Your task to perform on an android device: set the stopwatch Image 0: 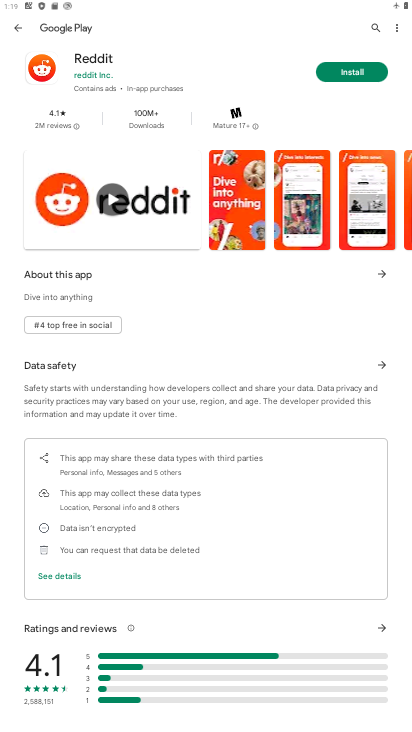
Step 0: press home button
Your task to perform on an android device: set the stopwatch Image 1: 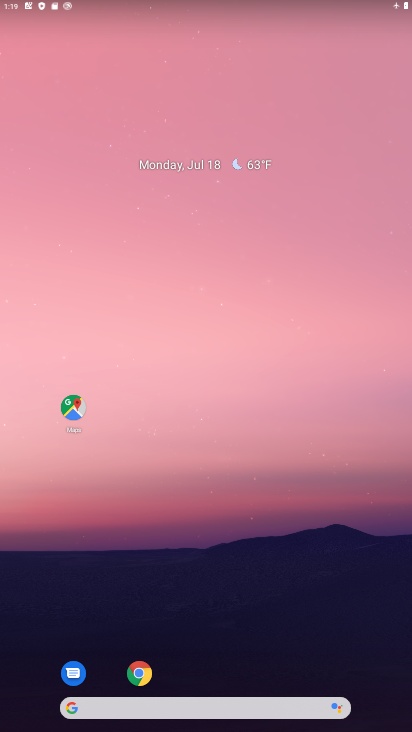
Step 1: drag from (279, 677) to (279, 258)
Your task to perform on an android device: set the stopwatch Image 2: 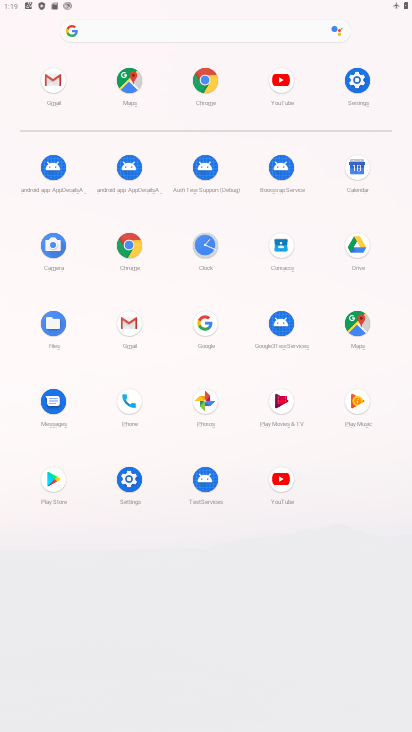
Step 2: click (197, 239)
Your task to perform on an android device: set the stopwatch Image 3: 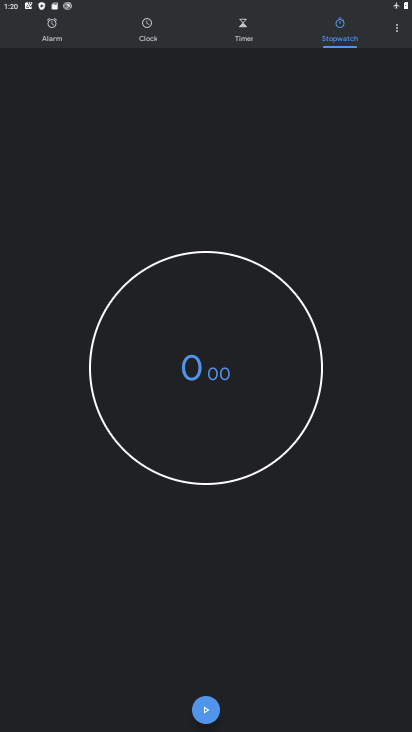
Step 3: task complete